Your task to perform on an android device: toggle show notifications on the lock screen Image 0: 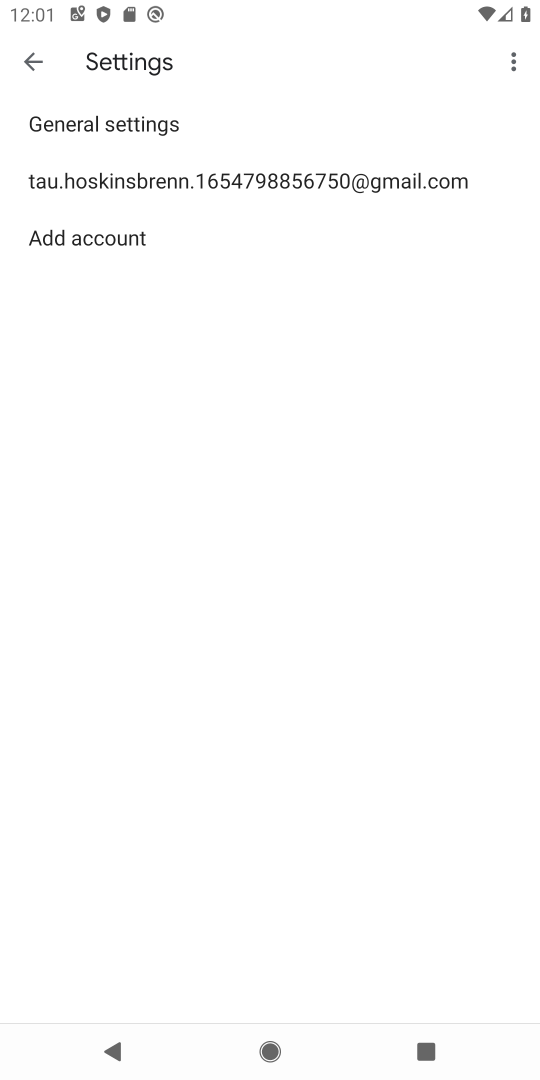
Step 0: press home button
Your task to perform on an android device: toggle show notifications on the lock screen Image 1: 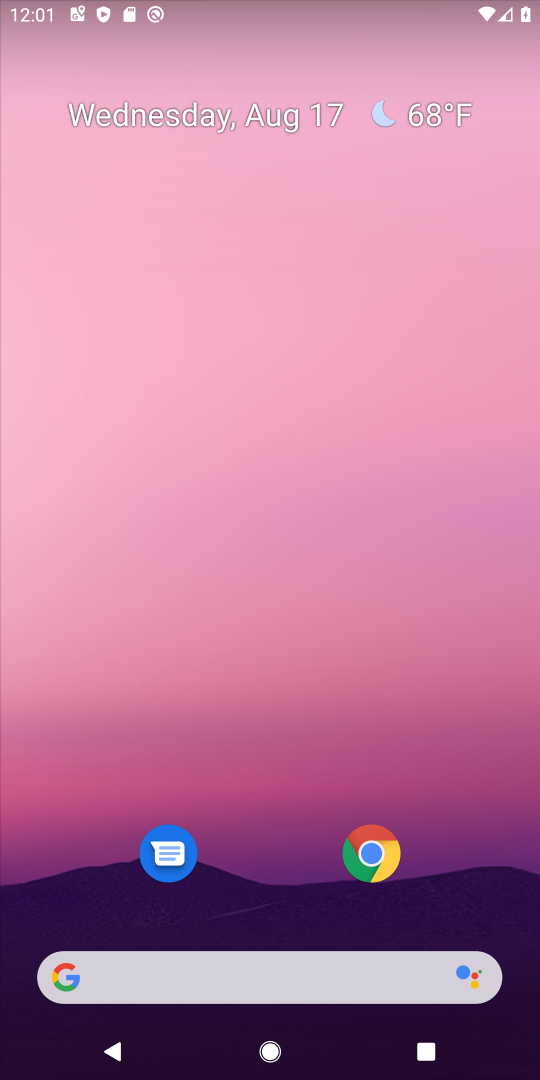
Step 1: drag from (322, 954) to (281, 517)
Your task to perform on an android device: toggle show notifications on the lock screen Image 2: 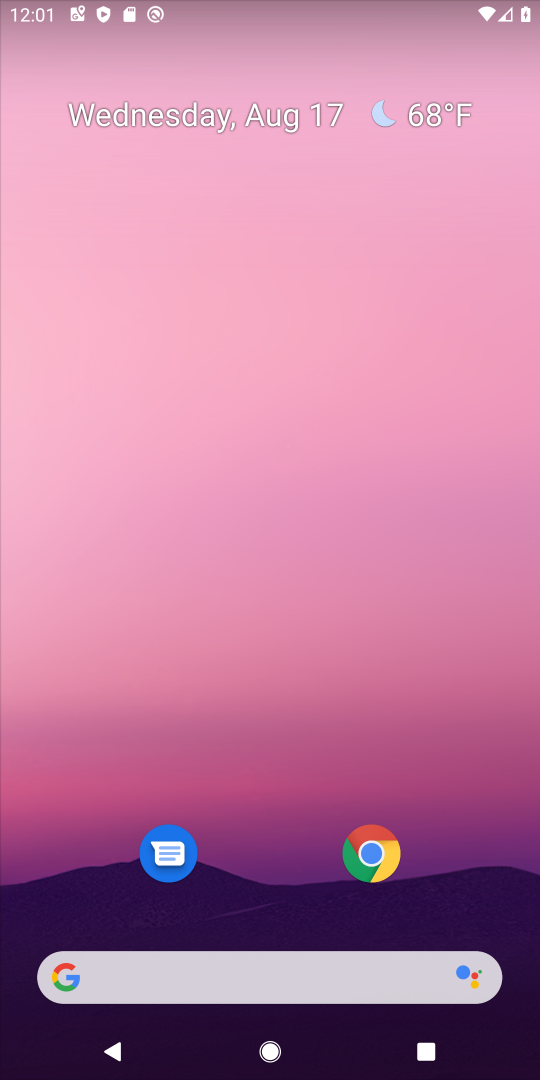
Step 2: drag from (231, 709) to (231, 414)
Your task to perform on an android device: toggle show notifications on the lock screen Image 3: 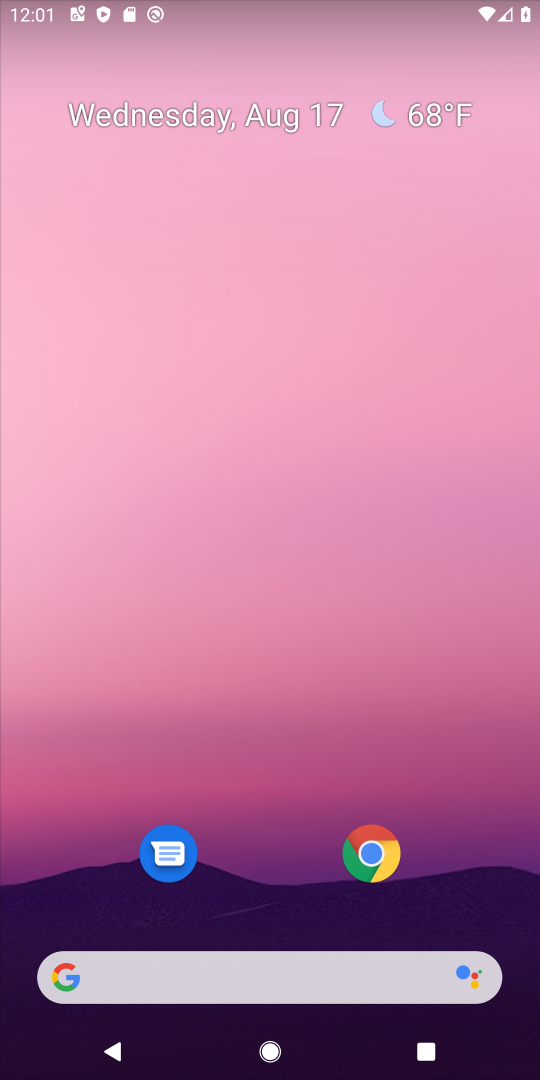
Step 3: drag from (214, 706) to (214, 393)
Your task to perform on an android device: toggle show notifications on the lock screen Image 4: 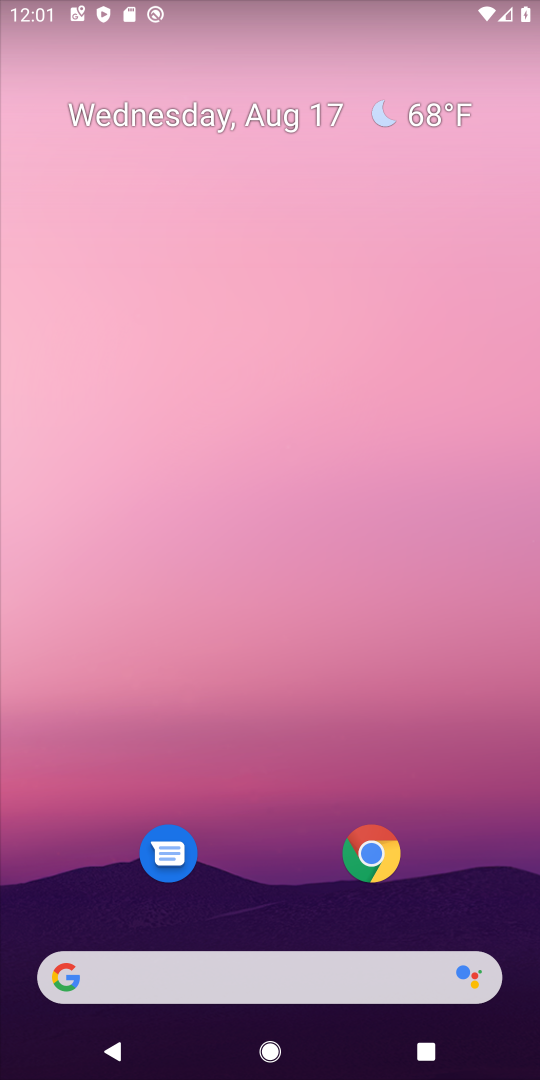
Step 4: drag from (270, 881) to (270, 300)
Your task to perform on an android device: toggle show notifications on the lock screen Image 5: 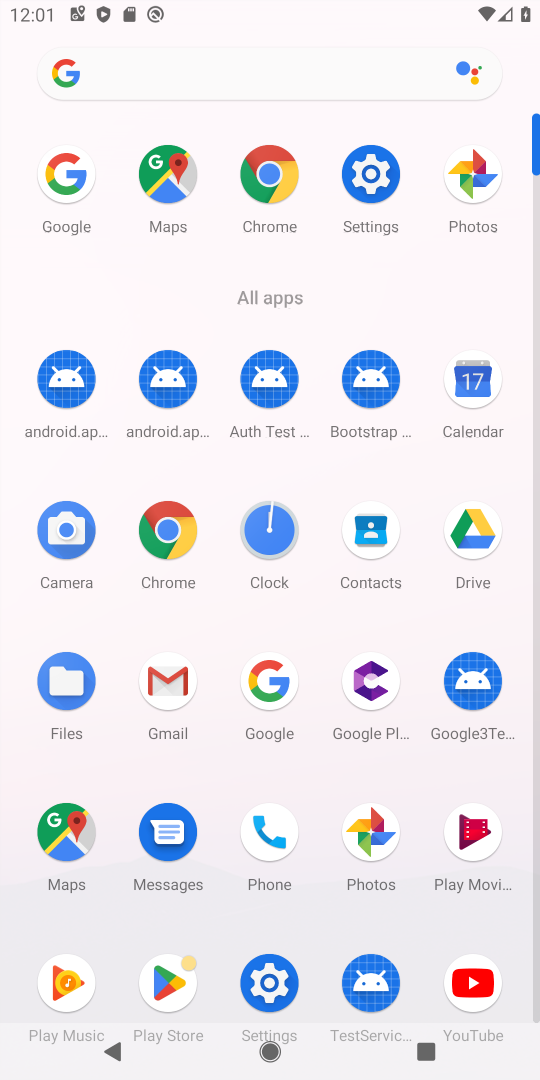
Step 5: click (359, 196)
Your task to perform on an android device: toggle show notifications on the lock screen Image 6: 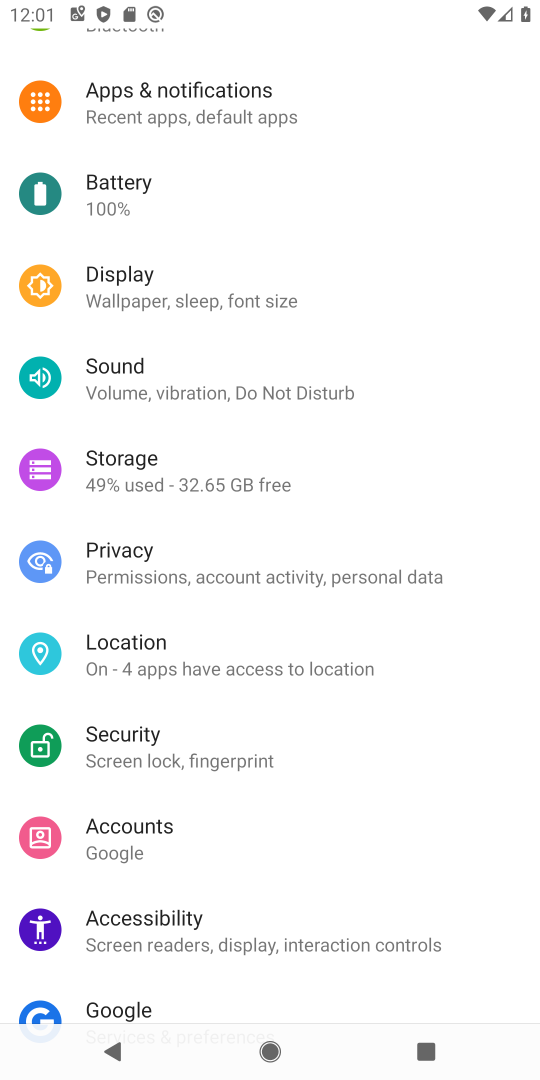
Step 6: click (109, 584)
Your task to perform on an android device: toggle show notifications on the lock screen Image 7: 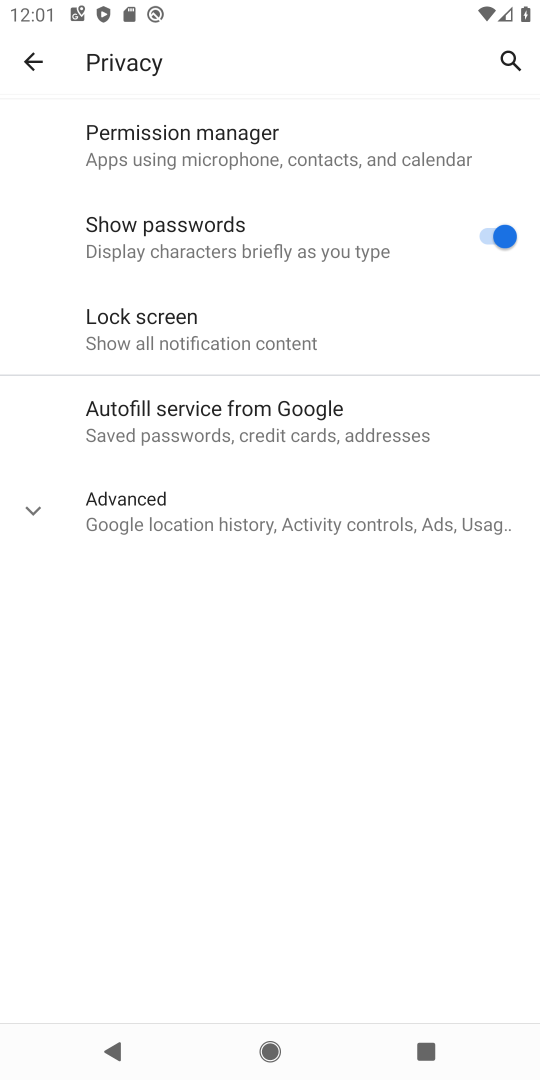
Step 7: click (138, 341)
Your task to perform on an android device: toggle show notifications on the lock screen Image 8: 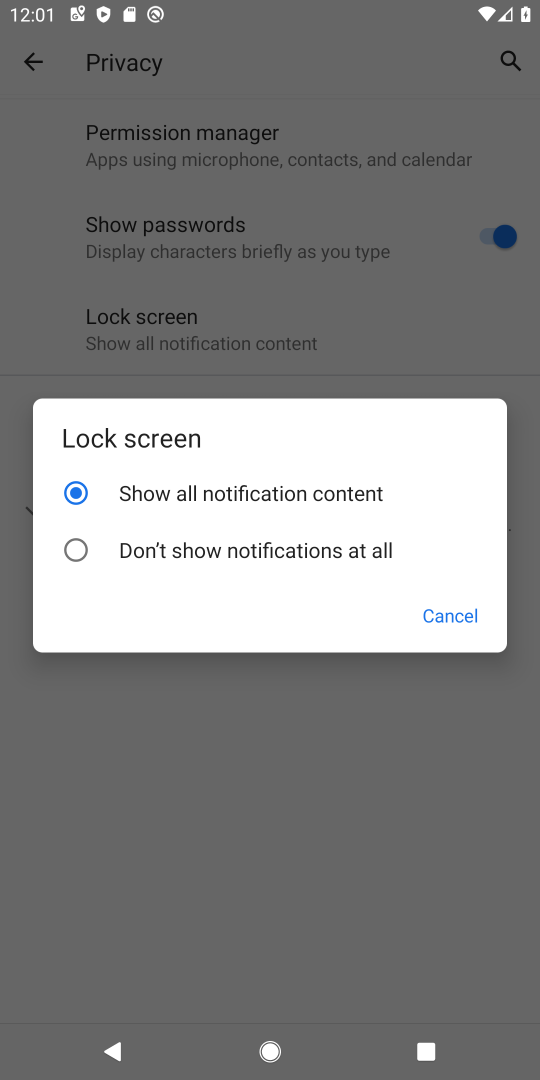
Step 8: click (195, 555)
Your task to perform on an android device: toggle show notifications on the lock screen Image 9: 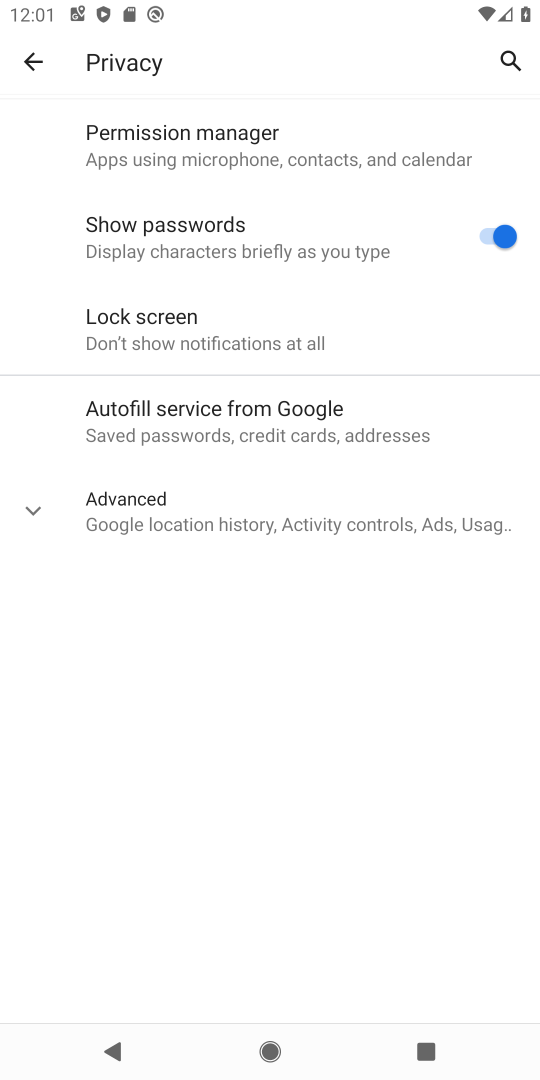
Step 9: task complete